Your task to perform on an android device: Empty the shopping cart on bestbuy. Add apple airpods to the cart on bestbuy, then select checkout. Image 0: 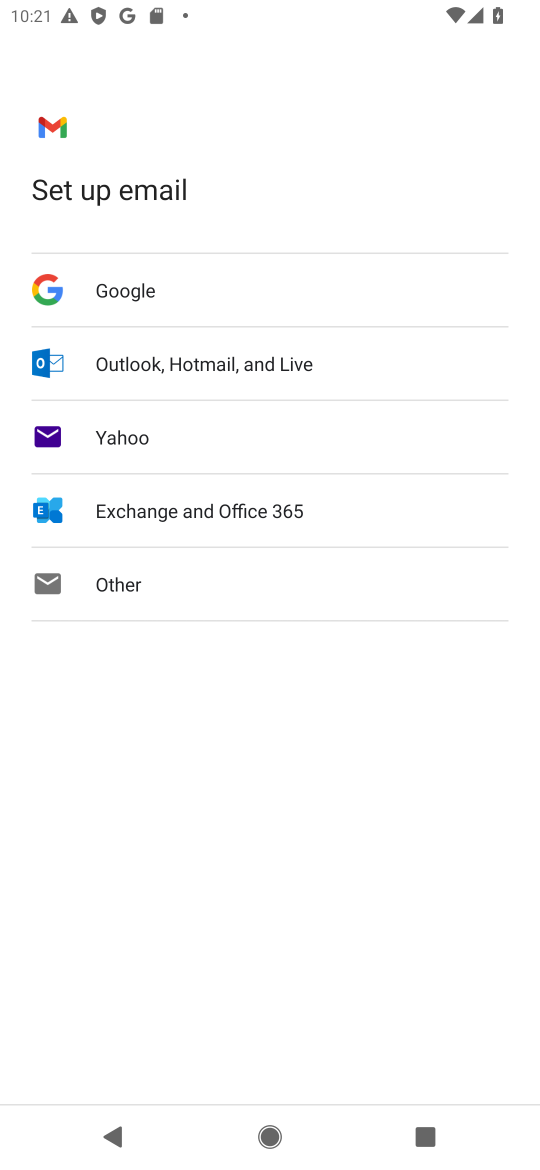
Step 0: press home button
Your task to perform on an android device: Empty the shopping cart on bestbuy. Add apple airpods to the cart on bestbuy, then select checkout. Image 1: 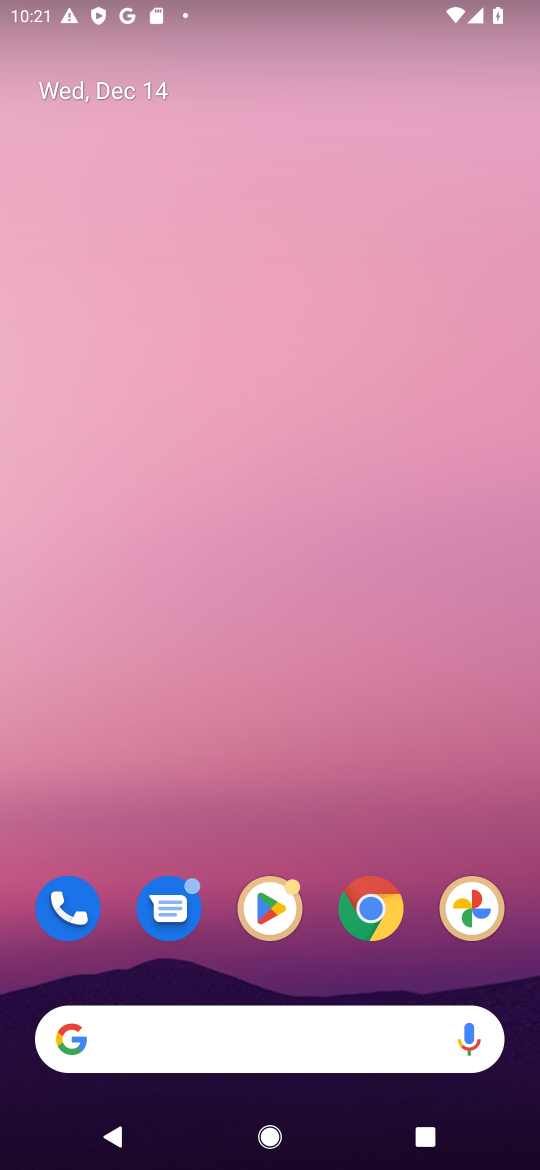
Step 1: click (371, 924)
Your task to perform on an android device: Empty the shopping cart on bestbuy. Add apple airpods to the cart on bestbuy, then select checkout. Image 2: 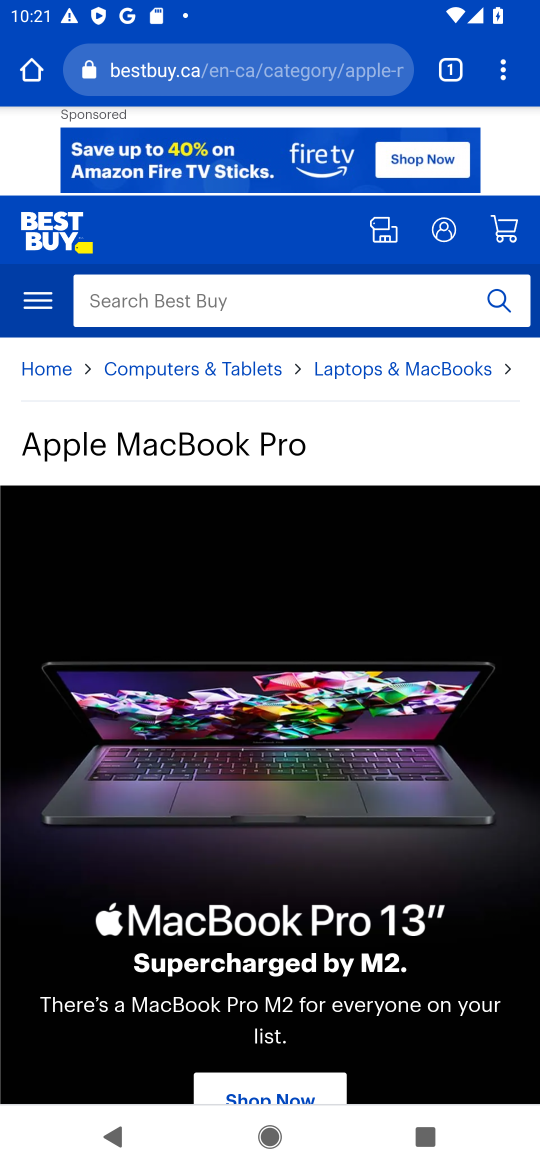
Step 2: click (193, 300)
Your task to perform on an android device: Empty the shopping cart on bestbuy. Add apple airpods to the cart on bestbuy, then select checkout. Image 3: 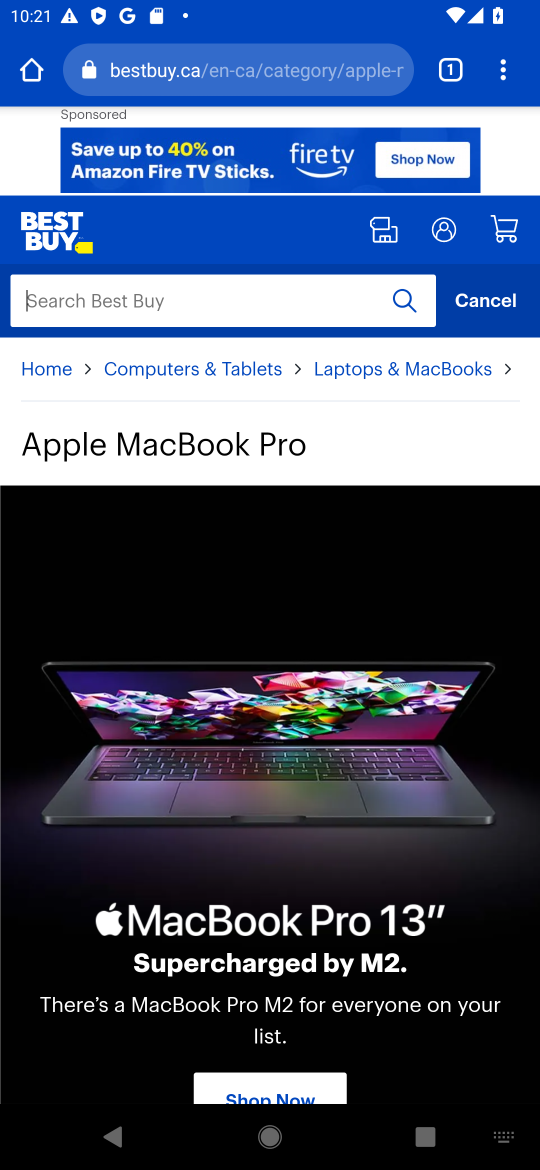
Step 3: type "apple airpod "
Your task to perform on an android device: Empty the shopping cart on bestbuy. Add apple airpods to the cart on bestbuy, then select checkout. Image 4: 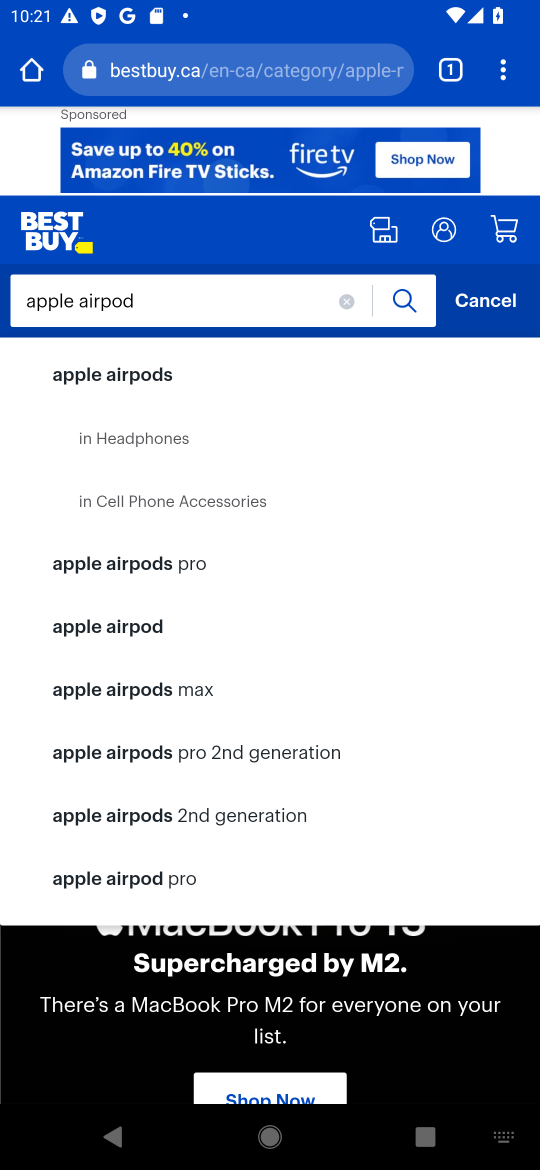
Step 4: click (106, 390)
Your task to perform on an android device: Empty the shopping cart on bestbuy. Add apple airpods to the cart on bestbuy, then select checkout. Image 5: 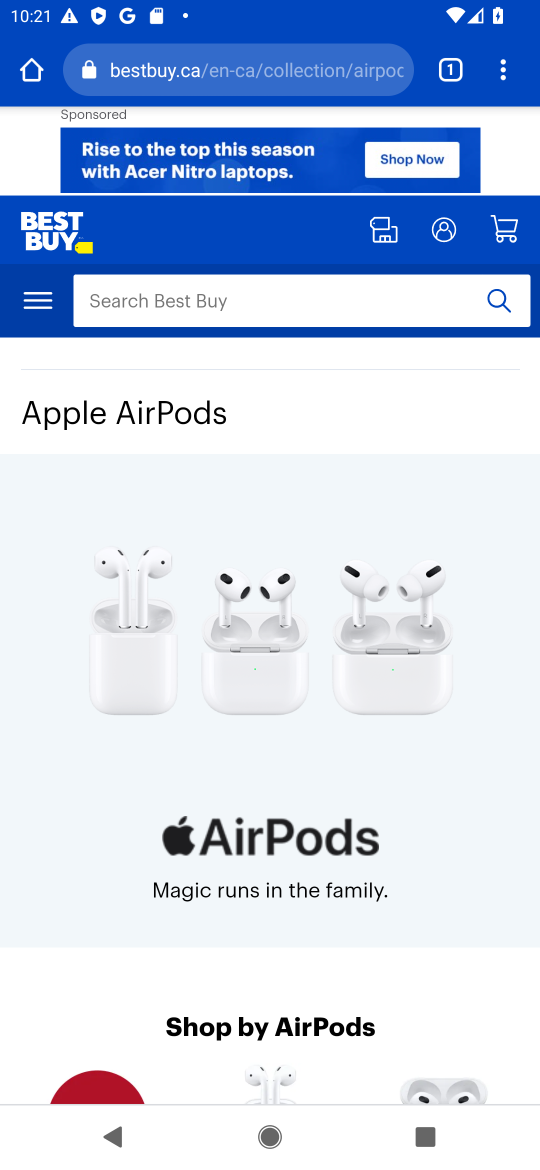
Step 5: drag from (336, 932) to (359, 565)
Your task to perform on an android device: Empty the shopping cart on bestbuy. Add apple airpods to the cart on bestbuy, then select checkout. Image 6: 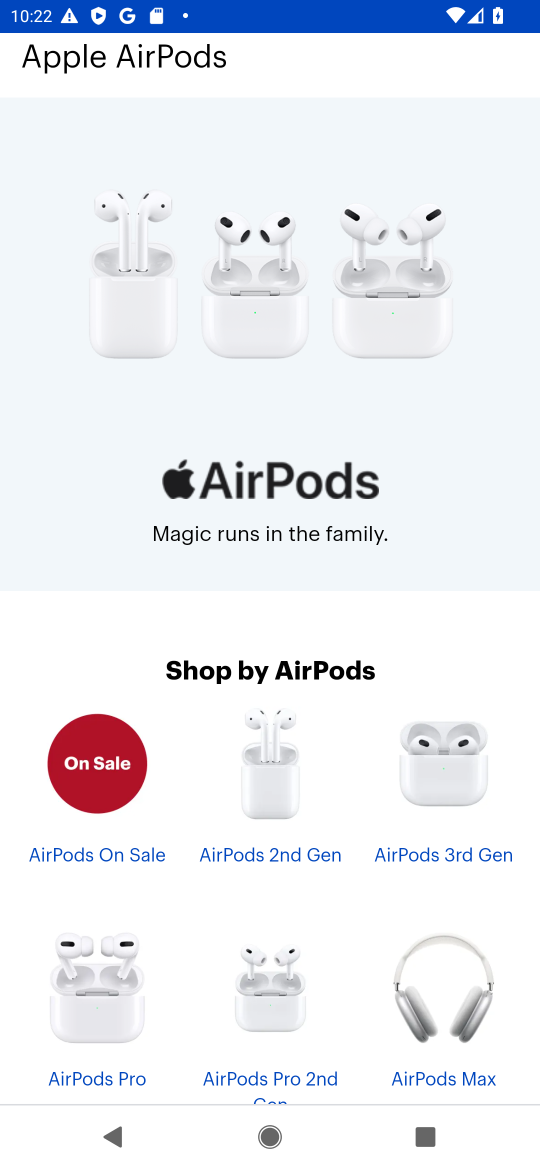
Step 6: click (108, 825)
Your task to perform on an android device: Empty the shopping cart on bestbuy. Add apple airpods to the cart on bestbuy, then select checkout. Image 7: 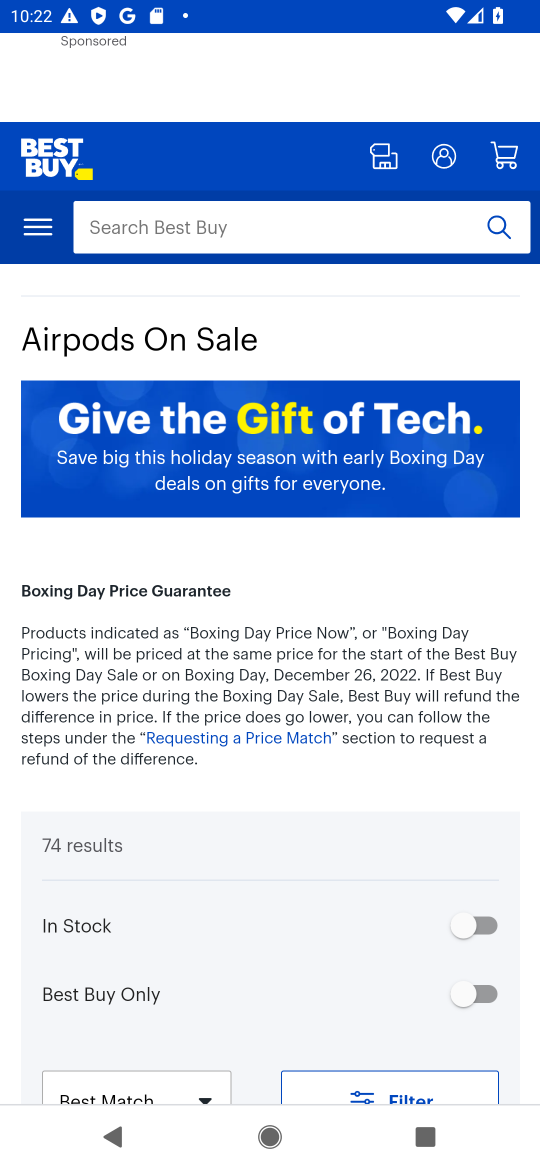
Step 7: task complete